Your task to perform on an android device: open app "PlayWell" (install if not already installed) Image 0: 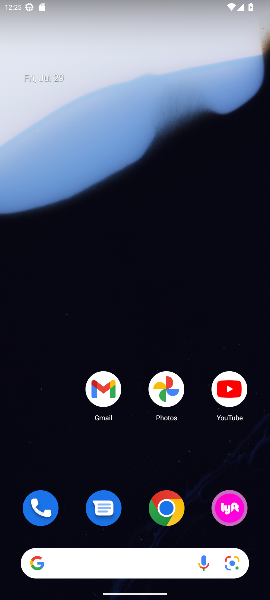
Step 0: drag from (150, 548) to (212, 16)
Your task to perform on an android device: open app "PlayWell" (install if not already installed) Image 1: 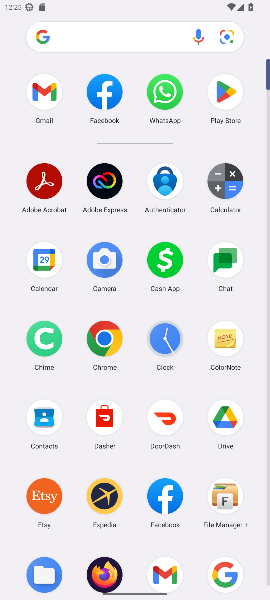
Step 1: click (223, 88)
Your task to perform on an android device: open app "PlayWell" (install if not already installed) Image 2: 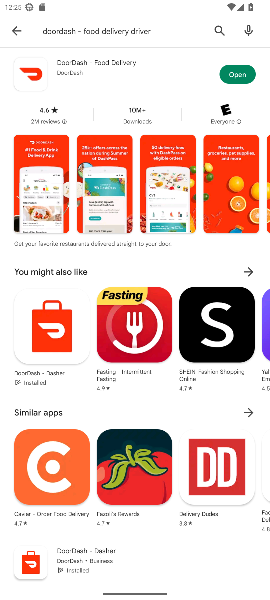
Step 2: click (218, 27)
Your task to perform on an android device: open app "PlayWell" (install if not already installed) Image 3: 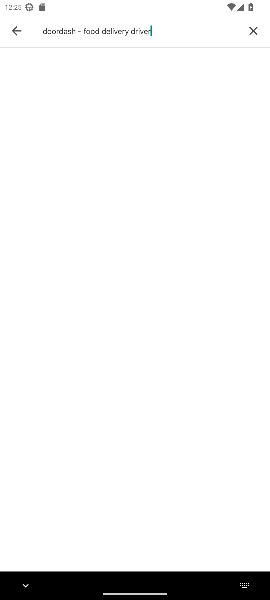
Step 3: click (252, 33)
Your task to perform on an android device: open app "PlayWell" (install if not already installed) Image 4: 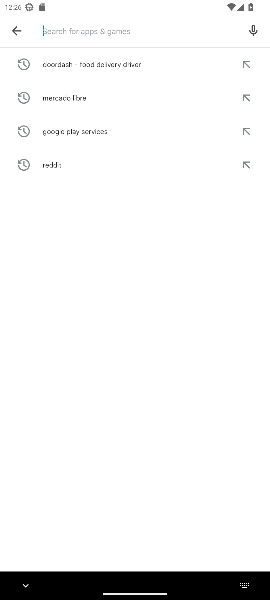
Step 4: type "playwell "
Your task to perform on an android device: open app "PlayWell" (install if not already installed) Image 5: 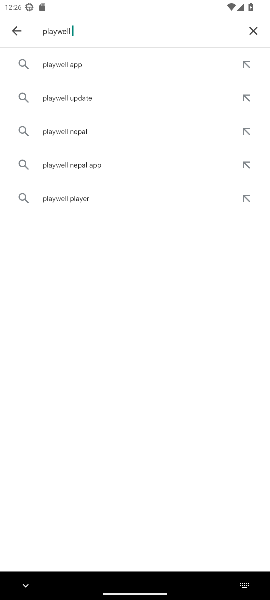
Step 5: click (66, 61)
Your task to perform on an android device: open app "PlayWell" (install if not already installed) Image 6: 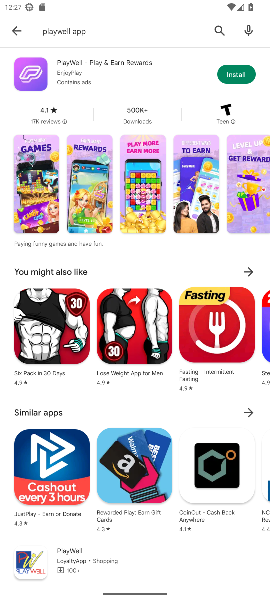
Step 6: task complete